Your task to perform on an android device: Open accessibility settings Image 0: 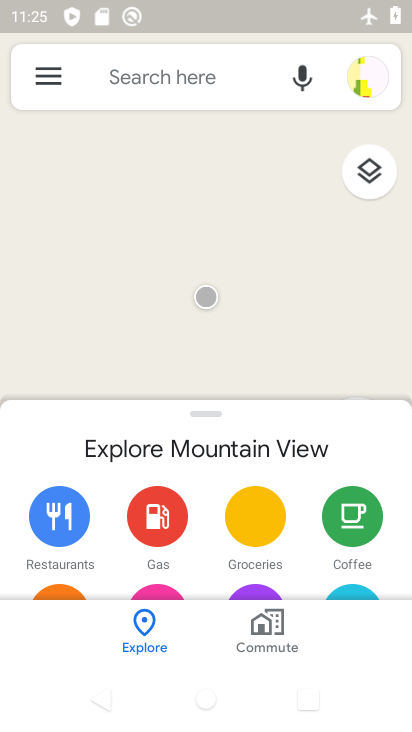
Step 0: press back button
Your task to perform on an android device: Open accessibility settings Image 1: 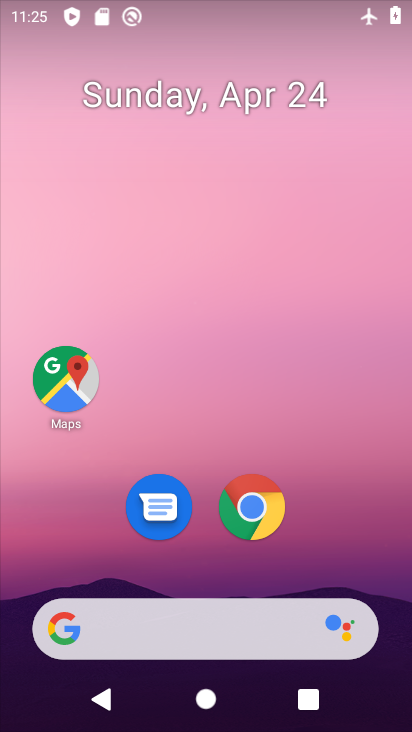
Step 1: drag from (332, 528) to (295, 4)
Your task to perform on an android device: Open accessibility settings Image 2: 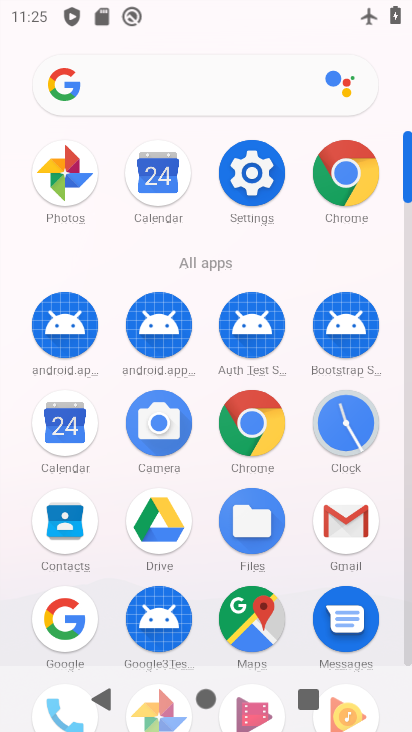
Step 2: click (257, 168)
Your task to perform on an android device: Open accessibility settings Image 3: 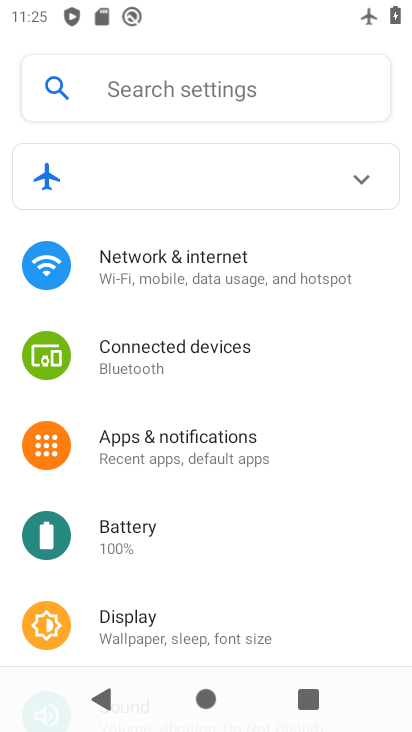
Step 3: drag from (277, 519) to (299, 43)
Your task to perform on an android device: Open accessibility settings Image 4: 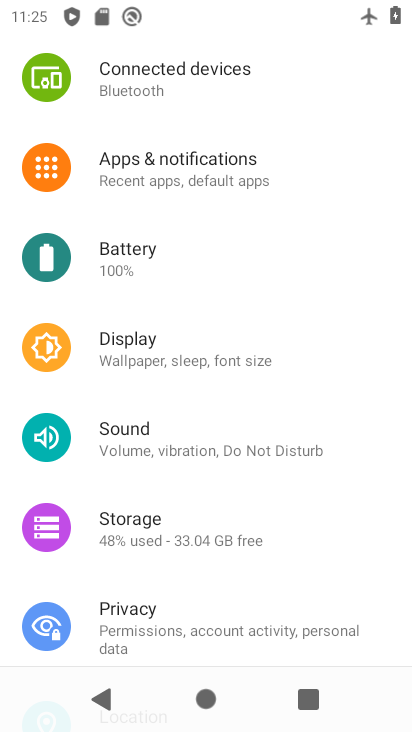
Step 4: drag from (291, 375) to (300, 22)
Your task to perform on an android device: Open accessibility settings Image 5: 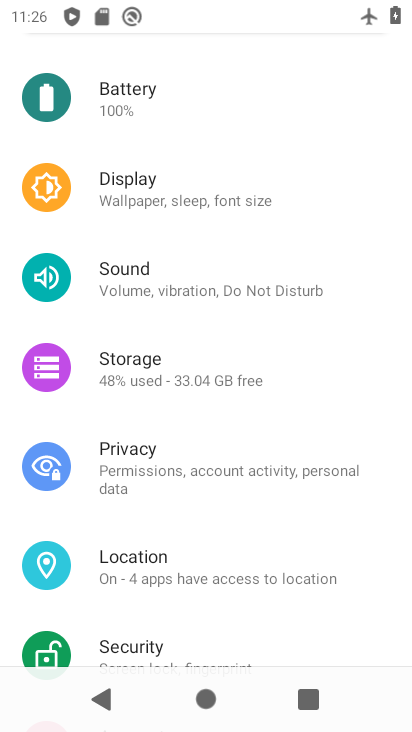
Step 5: drag from (220, 462) to (244, 92)
Your task to perform on an android device: Open accessibility settings Image 6: 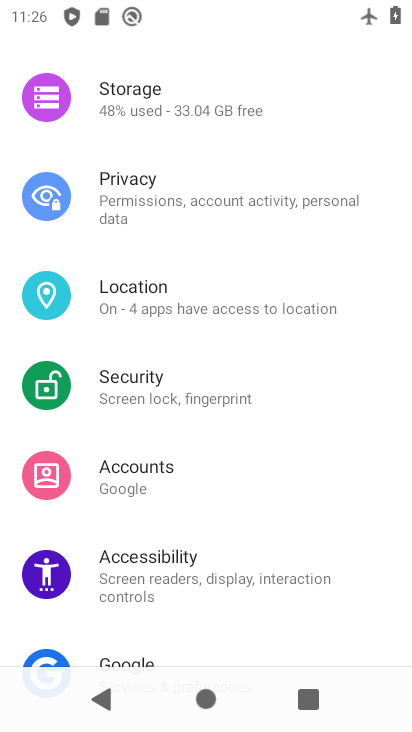
Step 6: drag from (256, 611) to (265, 268)
Your task to perform on an android device: Open accessibility settings Image 7: 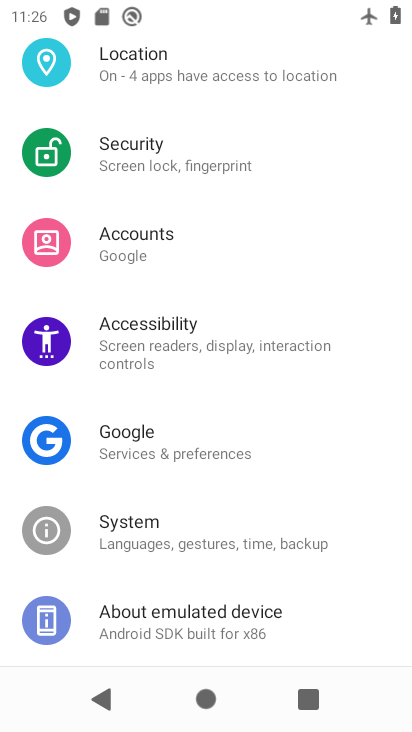
Step 7: click (160, 304)
Your task to perform on an android device: Open accessibility settings Image 8: 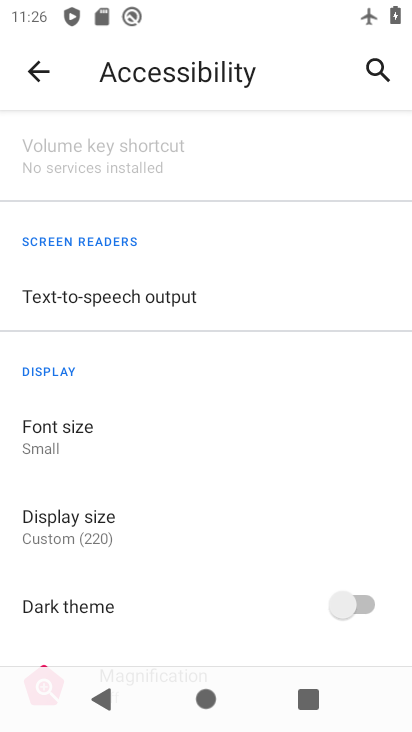
Step 8: task complete